Your task to perform on an android device: Open Google Chrome and open the bookmarks view Image 0: 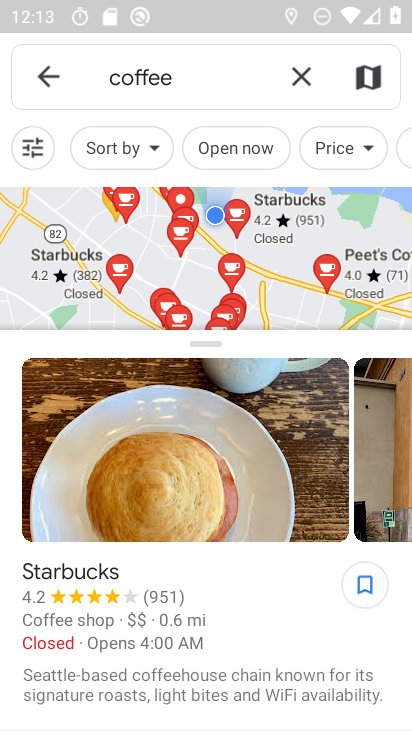
Step 0: press back button
Your task to perform on an android device: Open Google Chrome and open the bookmarks view Image 1: 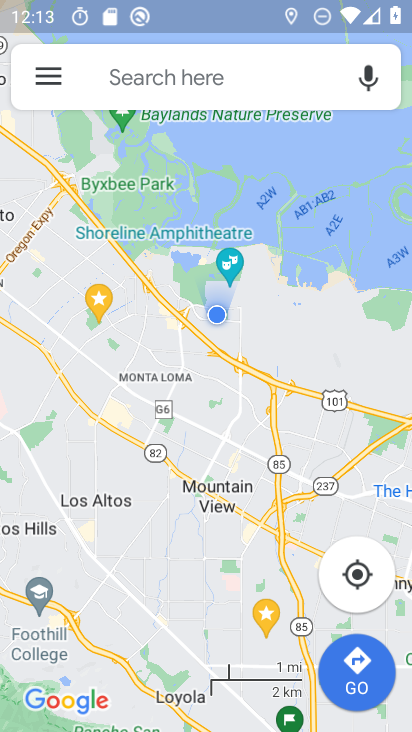
Step 1: press home button
Your task to perform on an android device: Open Google Chrome and open the bookmarks view Image 2: 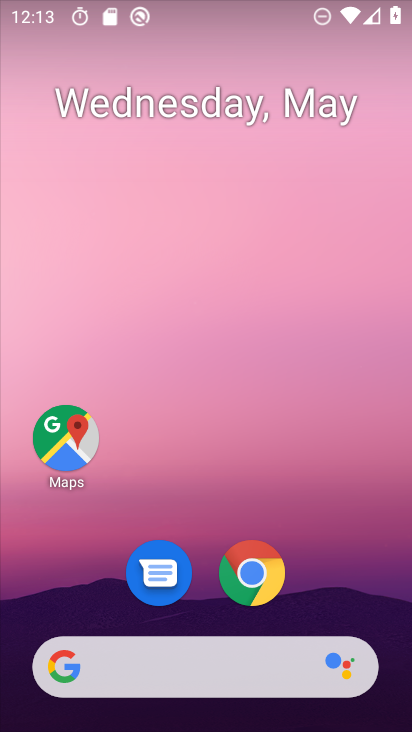
Step 2: drag from (351, 602) to (271, 41)
Your task to perform on an android device: Open Google Chrome and open the bookmarks view Image 3: 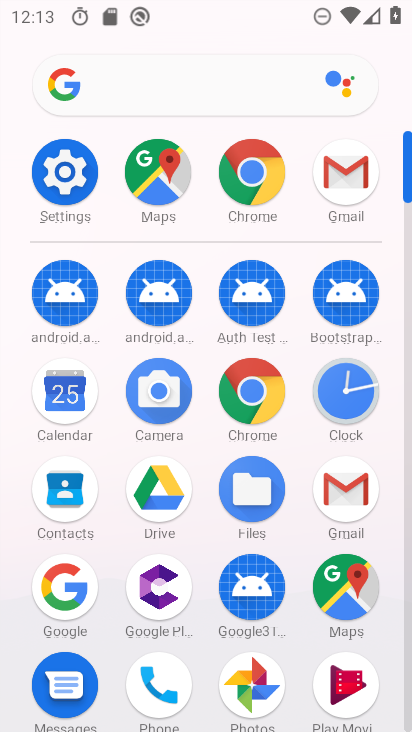
Step 3: click (249, 388)
Your task to perform on an android device: Open Google Chrome and open the bookmarks view Image 4: 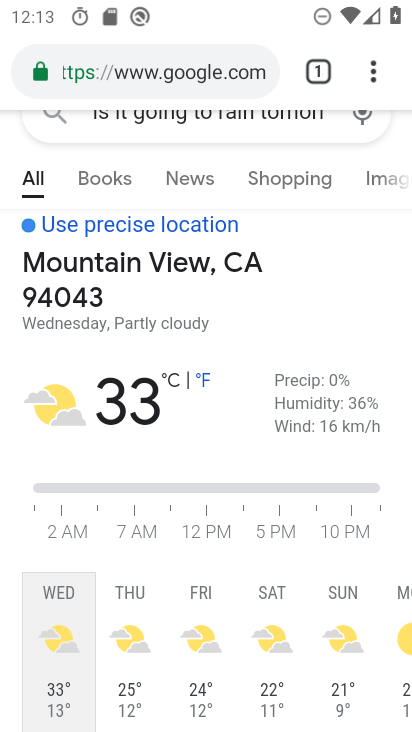
Step 4: task complete